Your task to perform on an android device: Go to wifi settings Image 0: 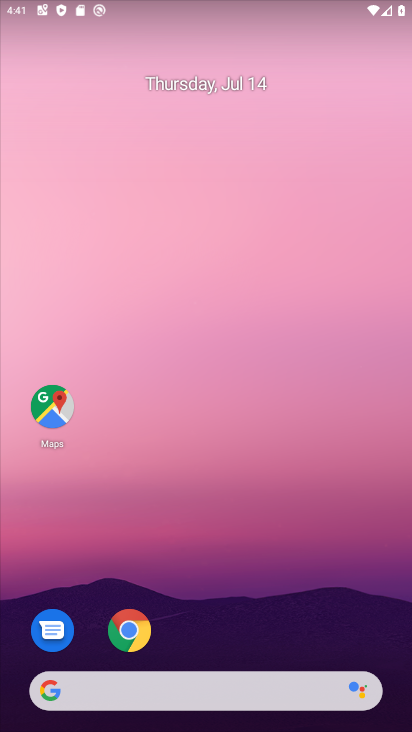
Step 0: drag from (144, 5) to (302, 587)
Your task to perform on an android device: Go to wifi settings Image 1: 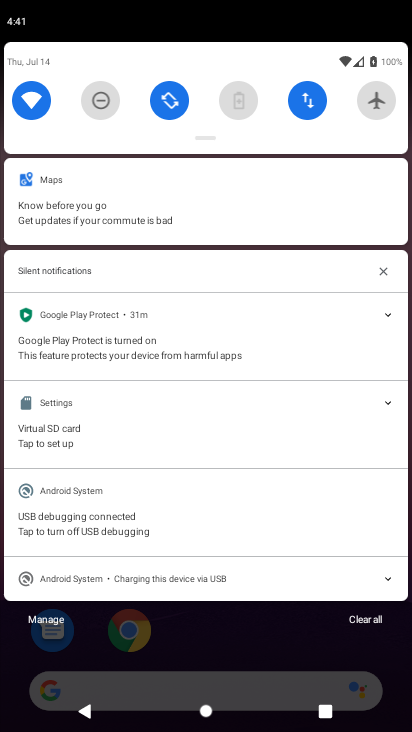
Step 1: click (43, 99)
Your task to perform on an android device: Go to wifi settings Image 2: 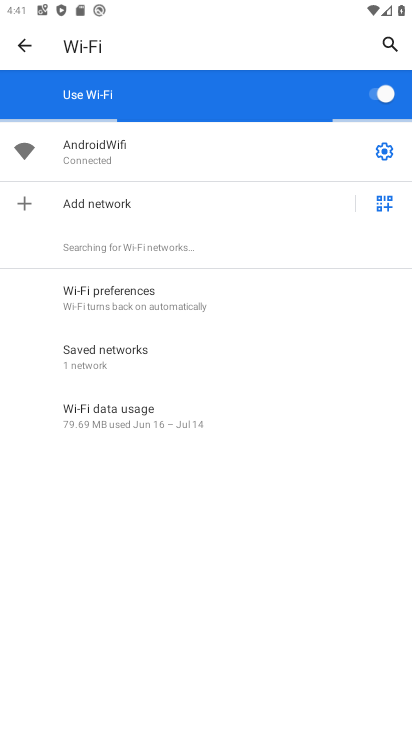
Step 2: task complete